Your task to perform on an android device: change the clock display to analog Image 0: 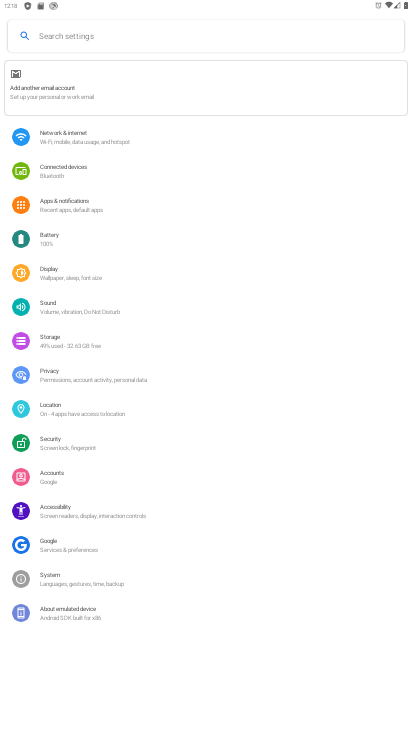
Step 0: press home button
Your task to perform on an android device: change the clock display to analog Image 1: 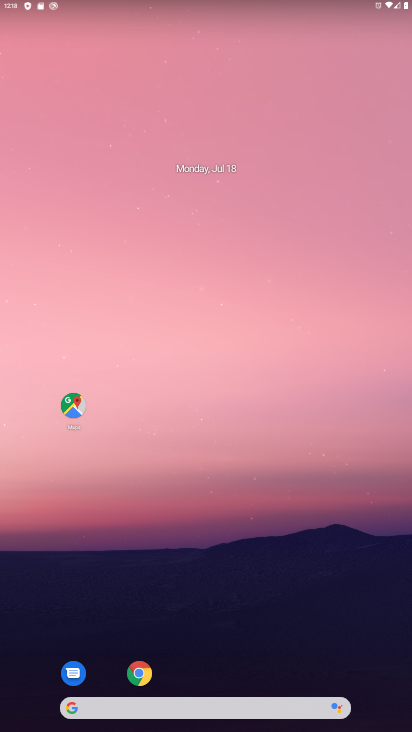
Step 1: drag from (201, 664) to (202, 411)
Your task to perform on an android device: change the clock display to analog Image 2: 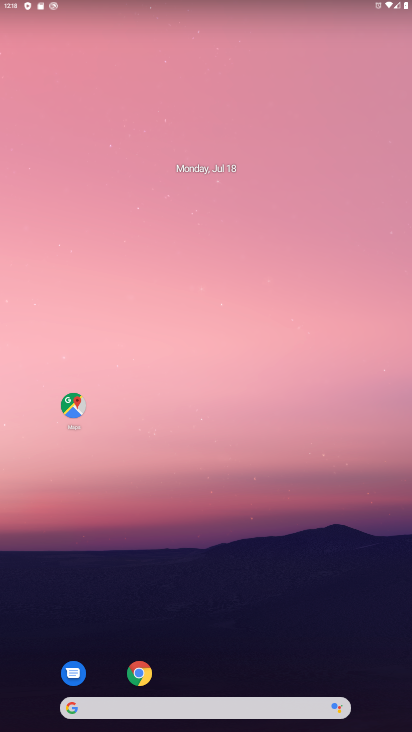
Step 2: drag from (257, 671) to (335, 177)
Your task to perform on an android device: change the clock display to analog Image 3: 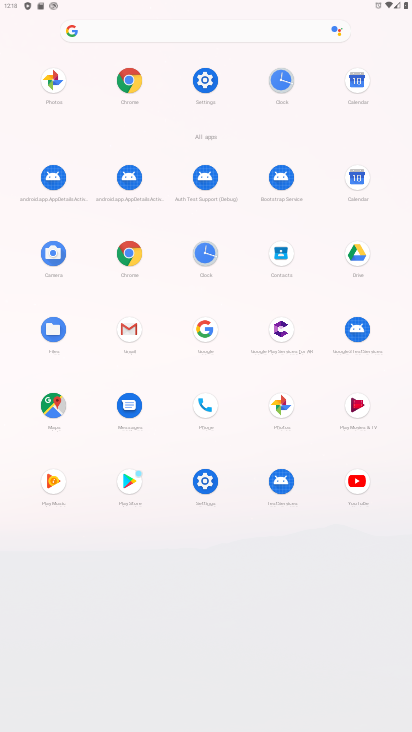
Step 3: click (289, 93)
Your task to perform on an android device: change the clock display to analog Image 4: 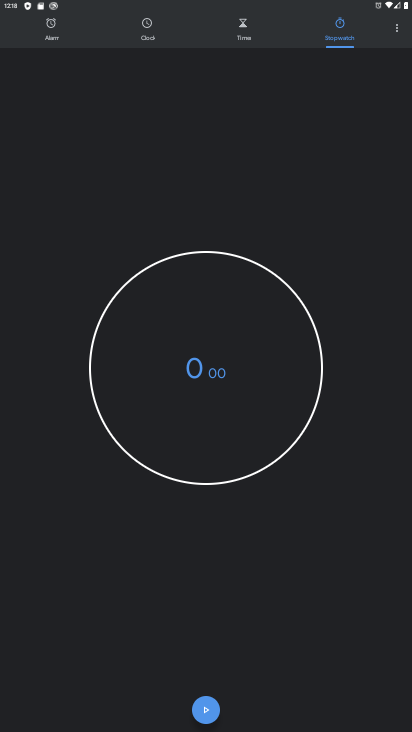
Step 4: click (398, 40)
Your task to perform on an android device: change the clock display to analog Image 5: 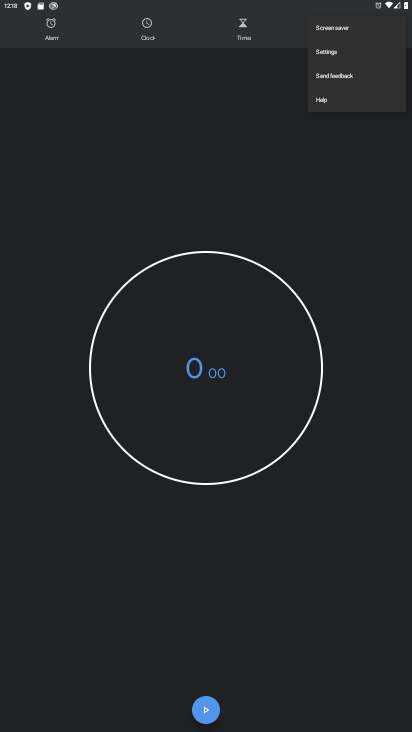
Step 5: click (329, 50)
Your task to perform on an android device: change the clock display to analog Image 6: 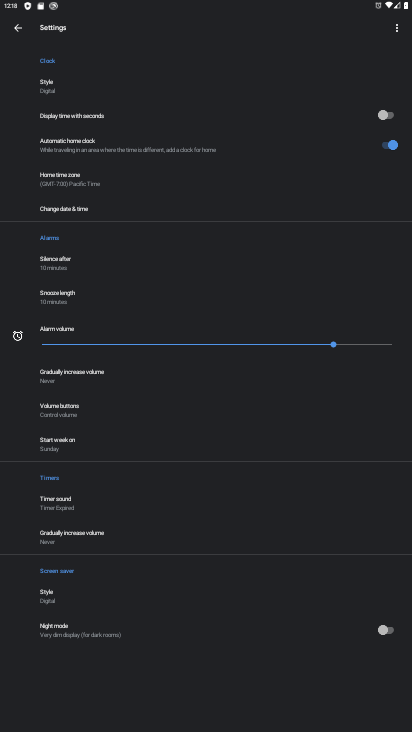
Step 6: click (62, 92)
Your task to perform on an android device: change the clock display to analog Image 7: 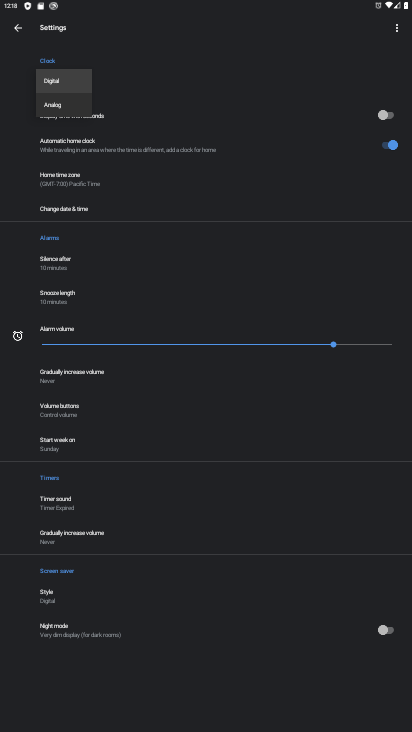
Step 7: click (62, 107)
Your task to perform on an android device: change the clock display to analog Image 8: 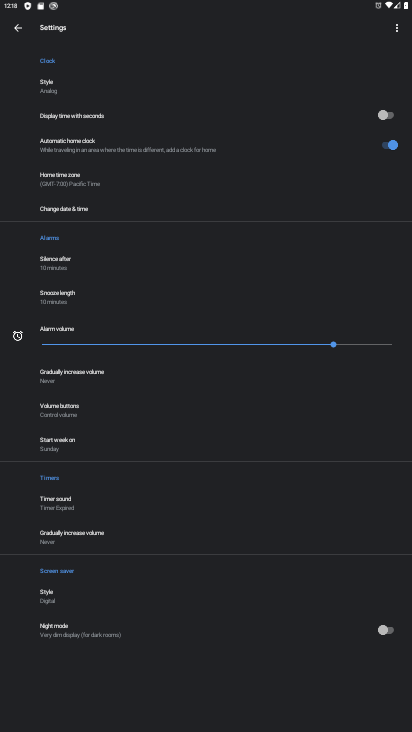
Step 8: task complete